Your task to perform on an android device: change notifications settings Image 0: 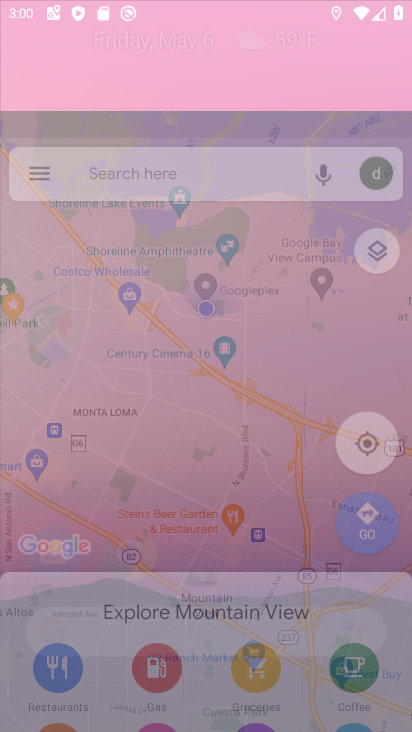
Step 0: click (276, 0)
Your task to perform on an android device: change notifications settings Image 1: 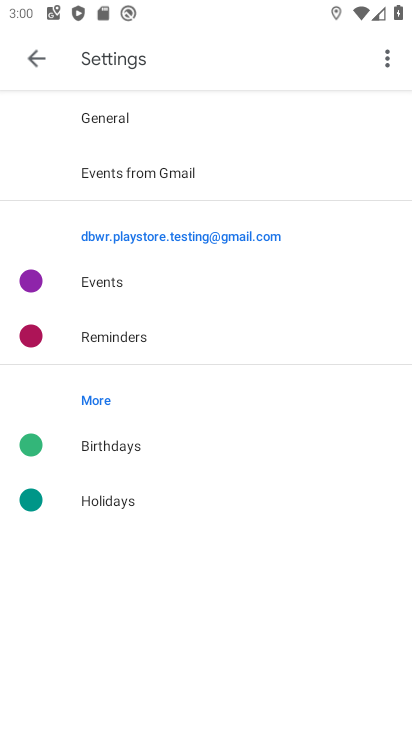
Step 1: press home button
Your task to perform on an android device: change notifications settings Image 2: 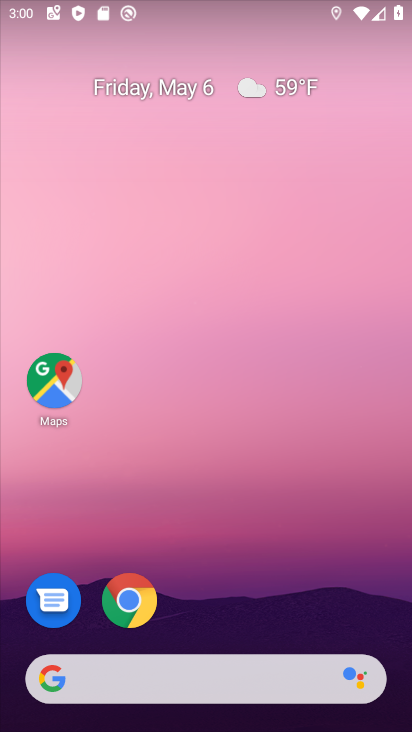
Step 2: drag from (250, 607) to (280, 22)
Your task to perform on an android device: change notifications settings Image 3: 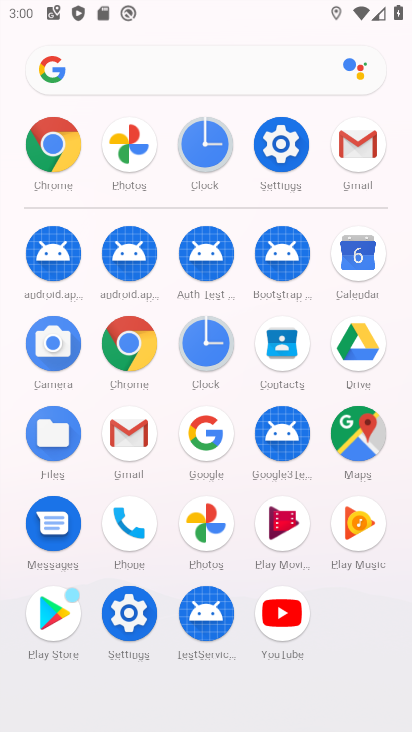
Step 3: click (277, 144)
Your task to perform on an android device: change notifications settings Image 4: 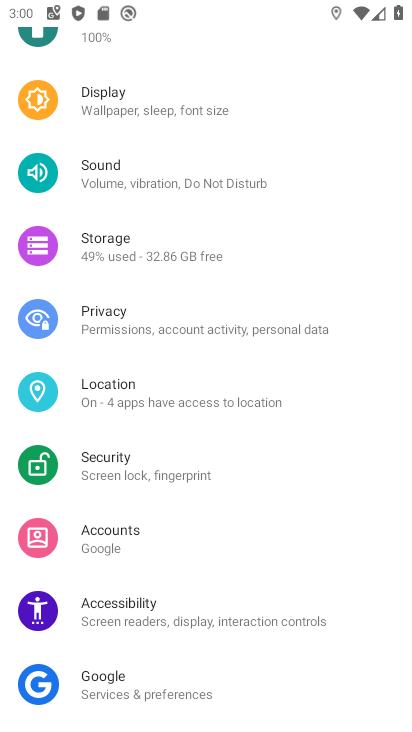
Step 4: drag from (173, 121) to (185, 502)
Your task to perform on an android device: change notifications settings Image 5: 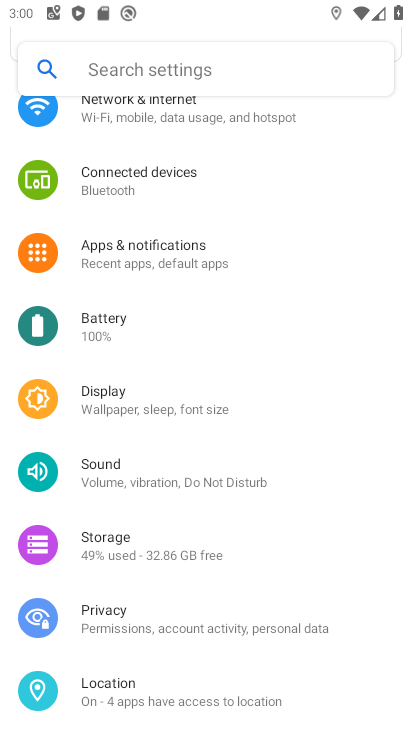
Step 5: click (154, 264)
Your task to perform on an android device: change notifications settings Image 6: 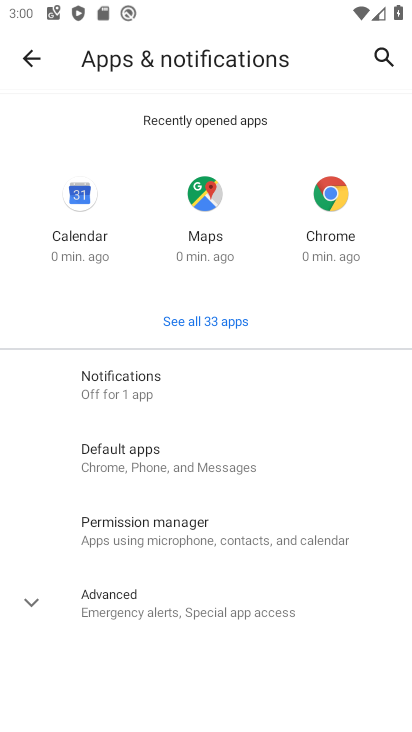
Step 6: click (138, 379)
Your task to perform on an android device: change notifications settings Image 7: 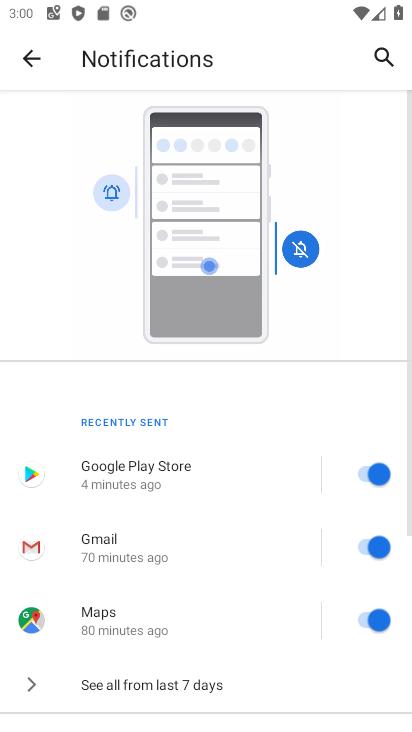
Step 7: drag from (216, 545) to (267, 91)
Your task to perform on an android device: change notifications settings Image 8: 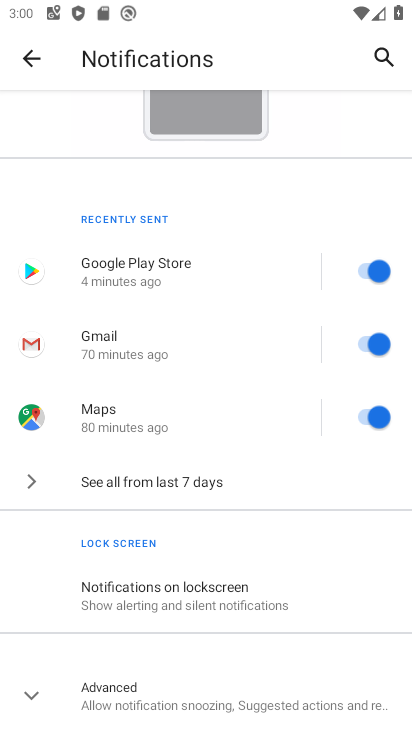
Step 8: click (121, 693)
Your task to perform on an android device: change notifications settings Image 9: 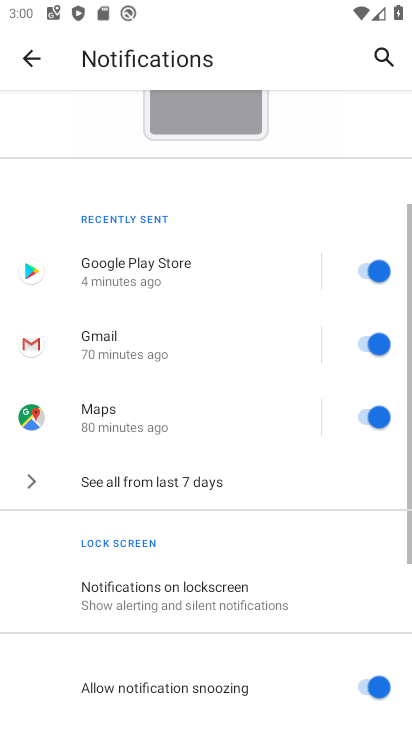
Step 9: drag from (227, 619) to (208, 311)
Your task to perform on an android device: change notifications settings Image 10: 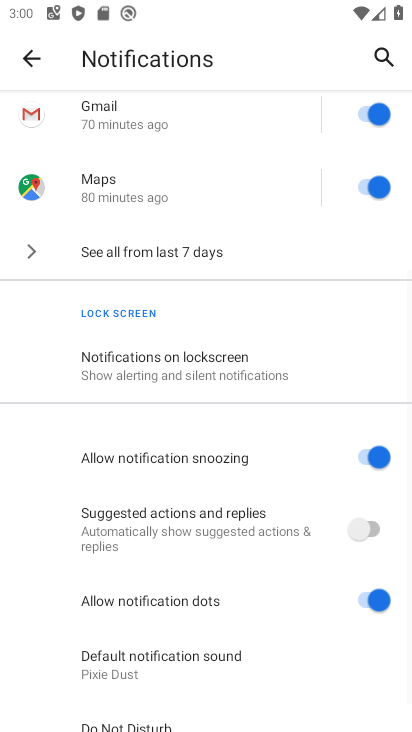
Step 10: click (384, 456)
Your task to perform on an android device: change notifications settings Image 11: 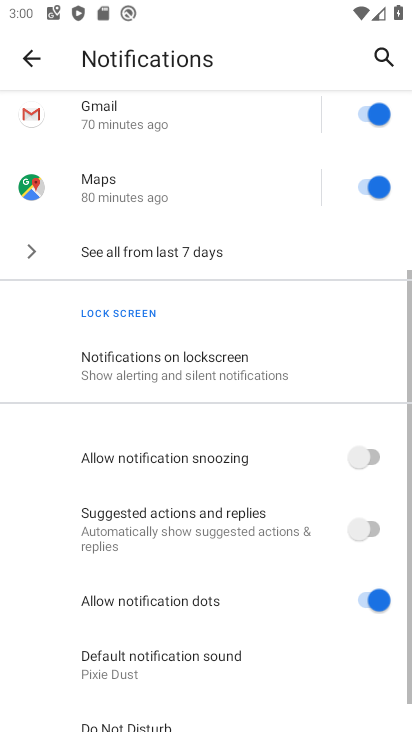
Step 11: click (362, 528)
Your task to perform on an android device: change notifications settings Image 12: 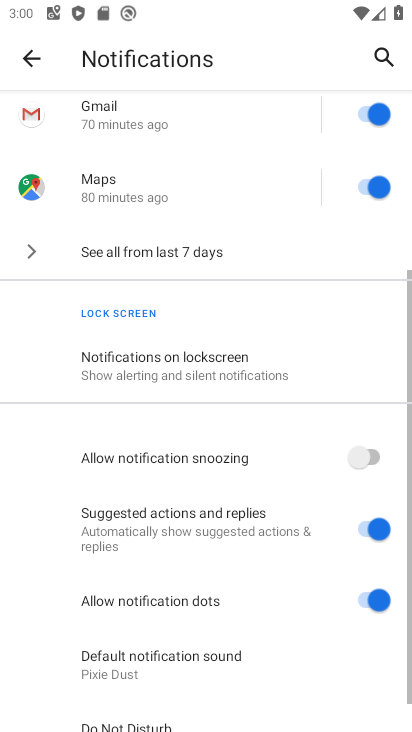
Step 12: click (378, 604)
Your task to perform on an android device: change notifications settings Image 13: 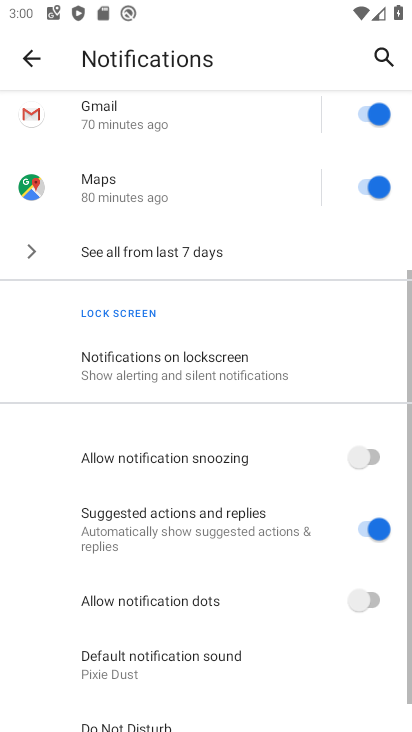
Step 13: drag from (276, 578) to (241, 551)
Your task to perform on an android device: change notifications settings Image 14: 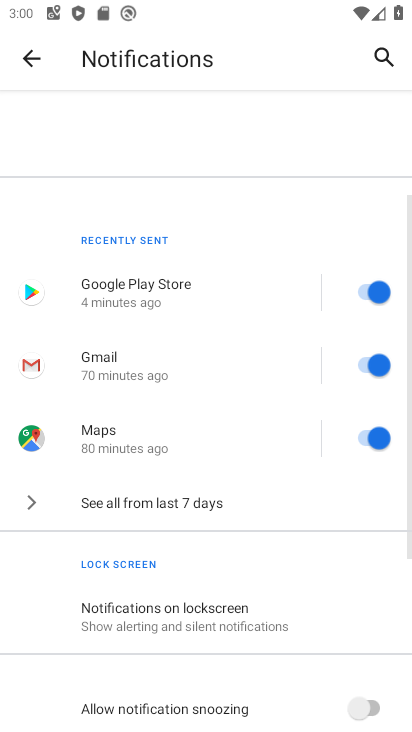
Step 14: click (169, 514)
Your task to perform on an android device: change notifications settings Image 15: 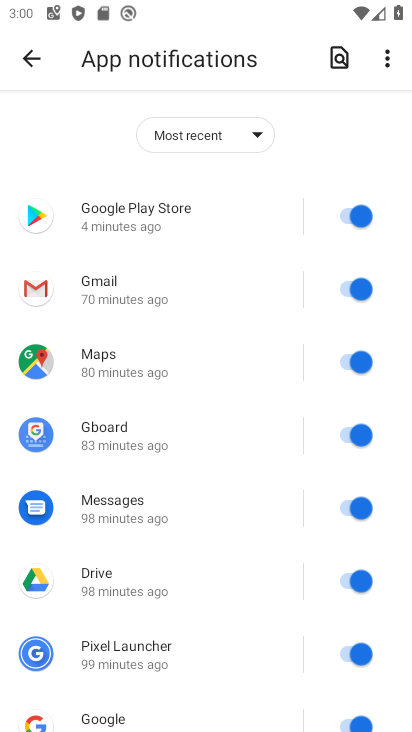
Step 15: click (339, 214)
Your task to perform on an android device: change notifications settings Image 16: 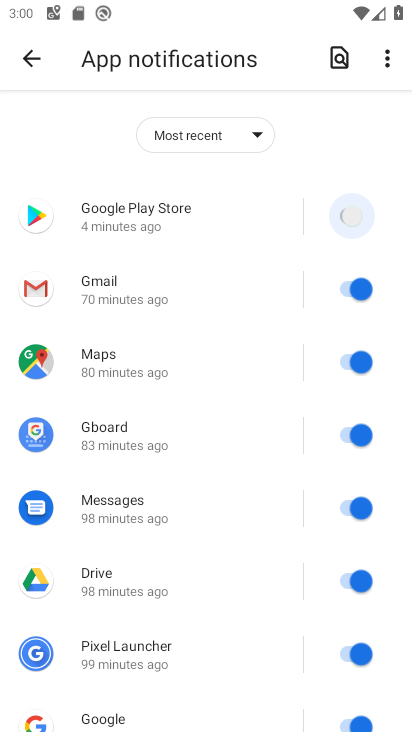
Step 16: click (353, 293)
Your task to perform on an android device: change notifications settings Image 17: 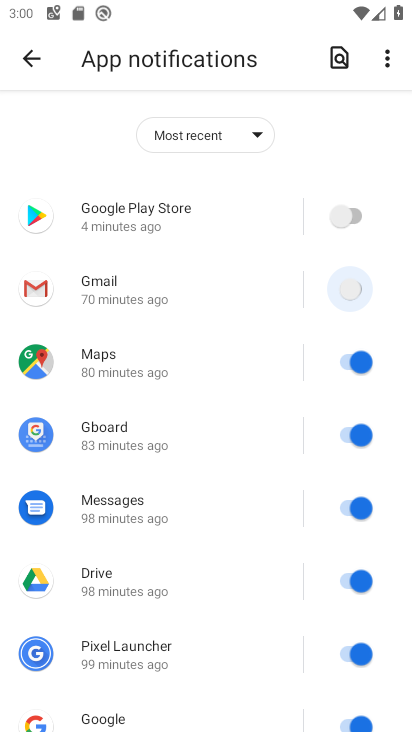
Step 17: click (350, 375)
Your task to perform on an android device: change notifications settings Image 18: 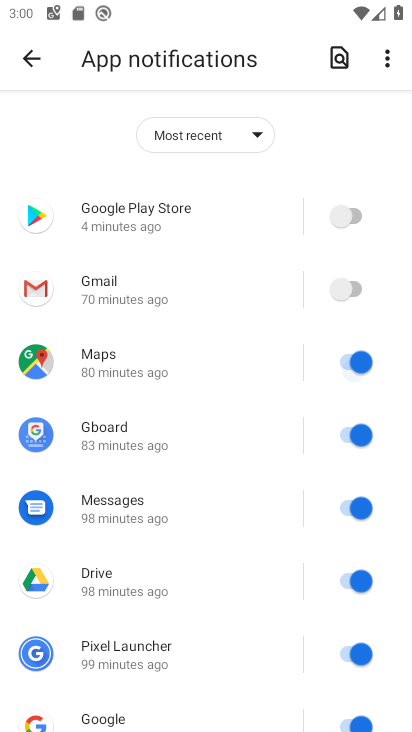
Step 18: click (350, 435)
Your task to perform on an android device: change notifications settings Image 19: 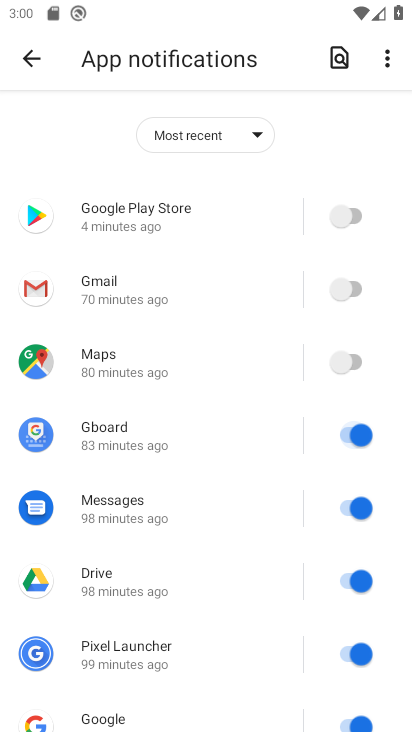
Step 19: click (353, 492)
Your task to perform on an android device: change notifications settings Image 20: 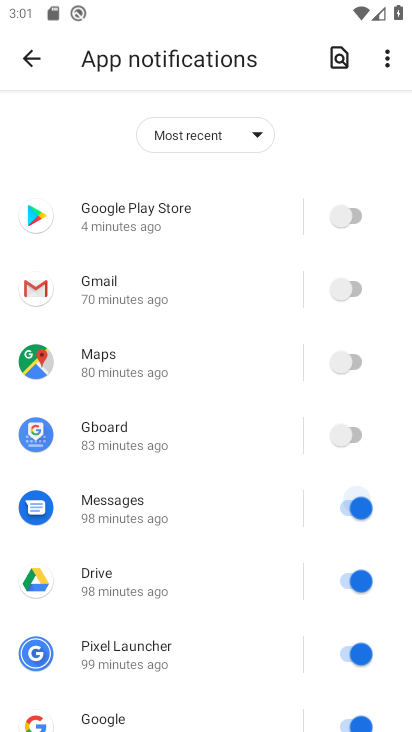
Step 20: click (356, 583)
Your task to perform on an android device: change notifications settings Image 21: 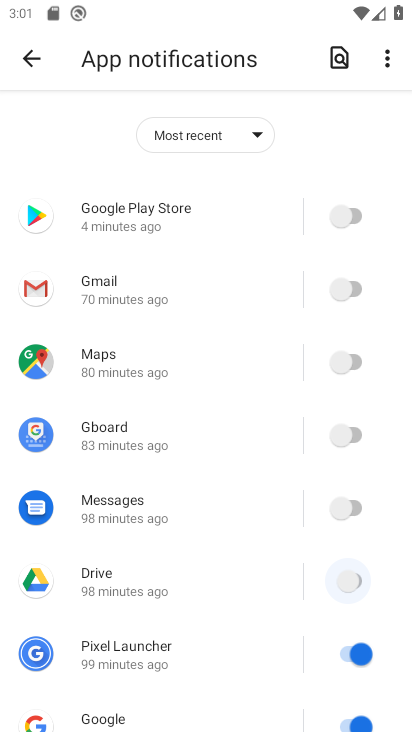
Step 21: click (356, 649)
Your task to perform on an android device: change notifications settings Image 22: 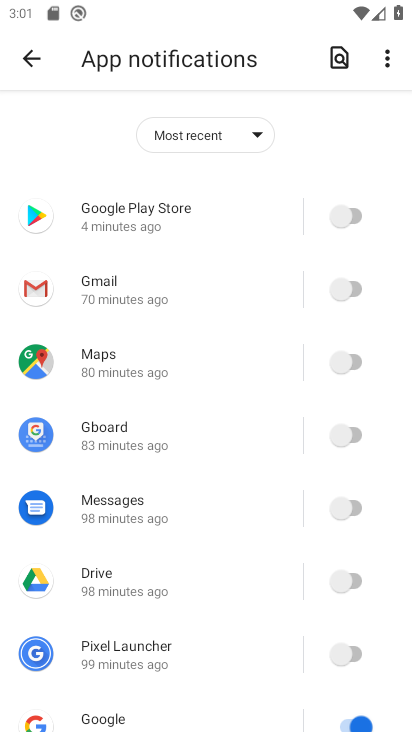
Step 22: click (356, 714)
Your task to perform on an android device: change notifications settings Image 23: 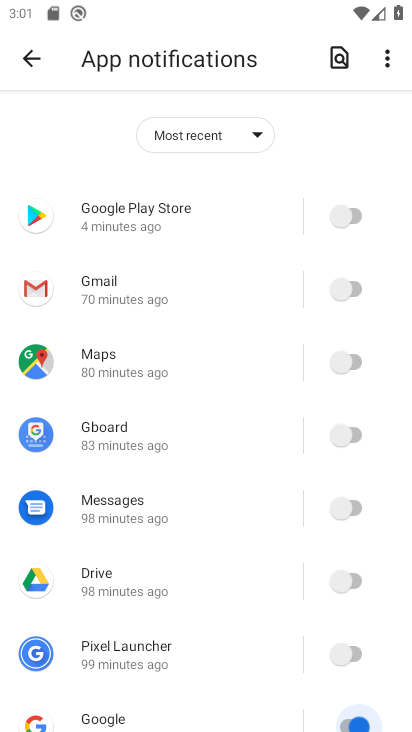
Step 23: task complete